Your task to perform on an android device: move an email to a new category in the gmail app Image 0: 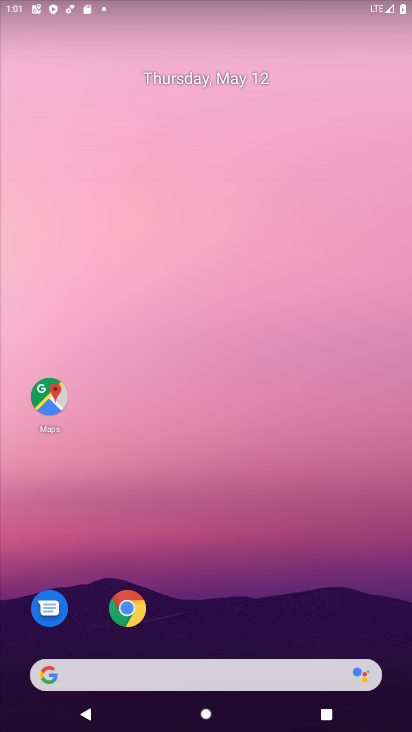
Step 0: drag from (338, 301) to (311, 38)
Your task to perform on an android device: move an email to a new category in the gmail app Image 1: 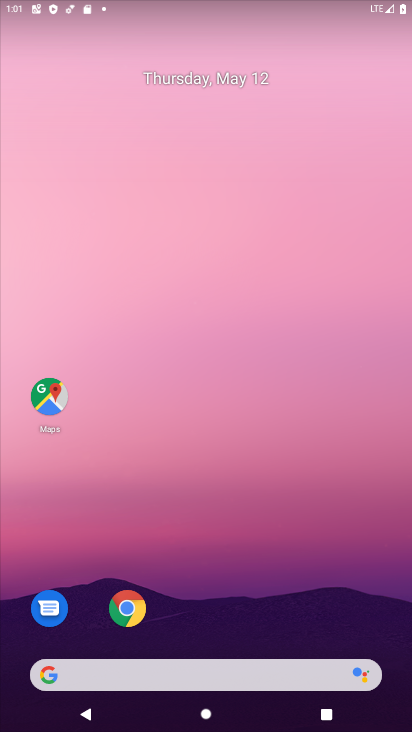
Step 1: drag from (277, 637) to (333, 4)
Your task to perform on an android device: move an email to a new category in the gmail app Image 2: 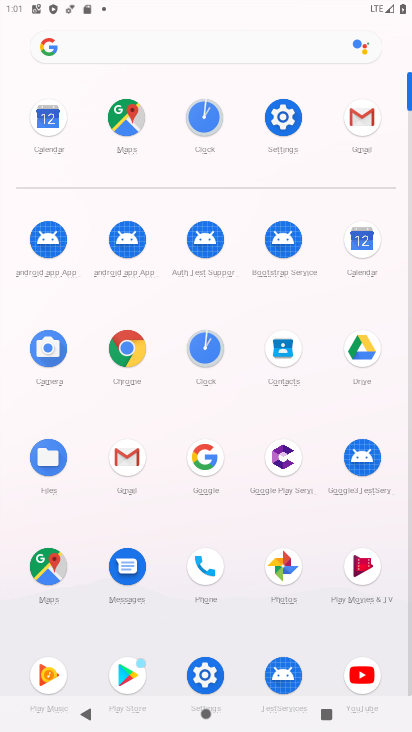
Step 2: click (354, 114)
Your task to perform on an android device: move an email to a new category in the gmail app Image 3: 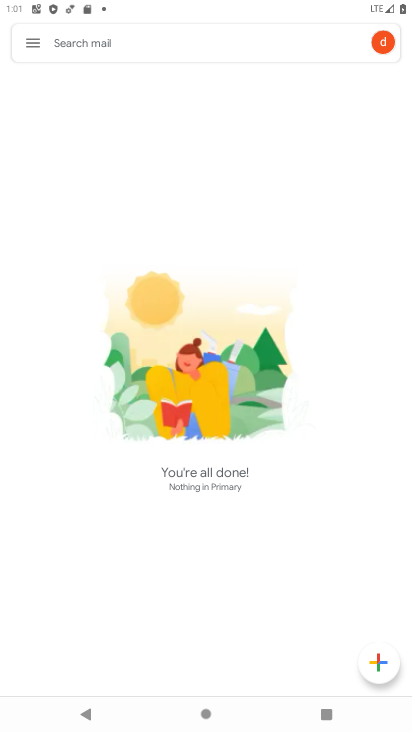
Step 3: click (30, 39)
Your task to perform on an android device: move an email to a new category in the gmail app Image 4: 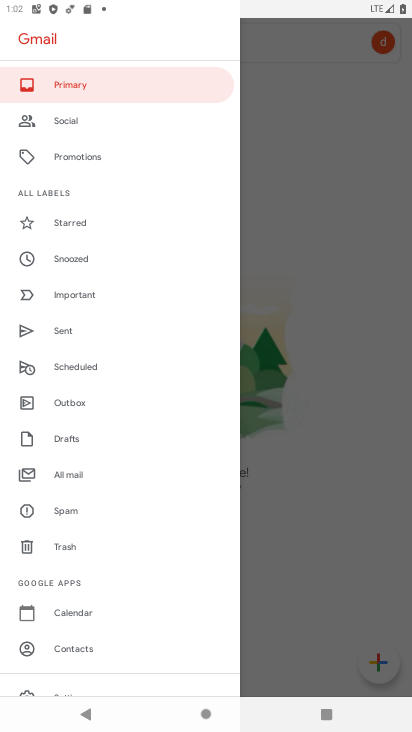
Step 4: click (72, 469)
Your task to perform on an android device: move an email to a new category in the gmail app Image 5: 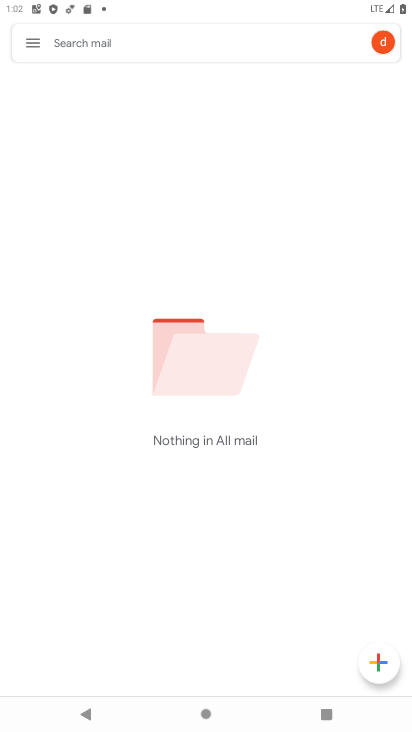
Step 5: task complete